Your task to perform on an android device: Search for hotels in Austin Image 0: 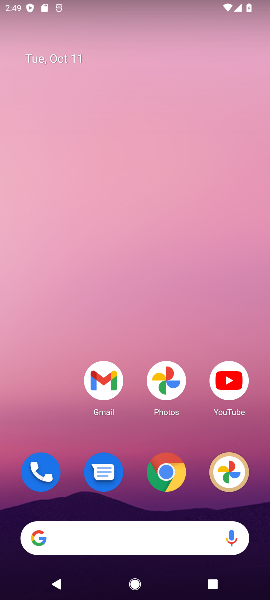
Step 0: click (168, 472)
Your task to perform on an android device: Search for hotels in Austin Image 1: 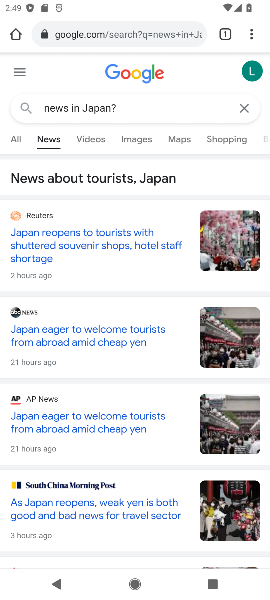
Step 1: click (62, 38)
Your task to perform on an android device: Search for hotels in Austin Image 2: 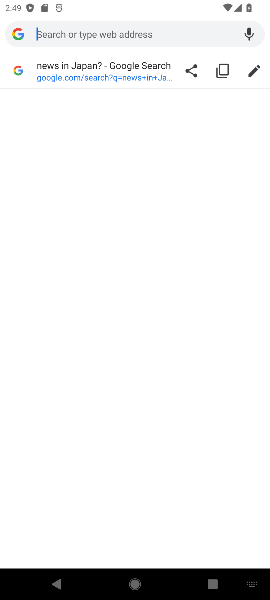
Step 2: type " hotels in Austin"
Your task to perform on an android device: Search for hotels in Austin Image 3: 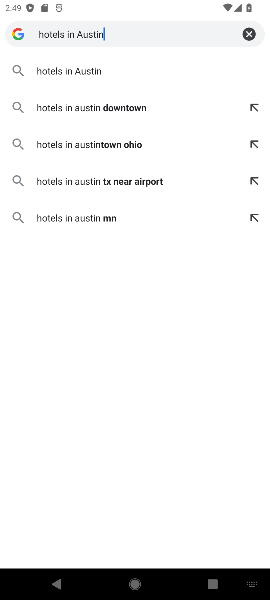
Step 3: click (70, 74)
Your task to perform on an android device: Search for hotels in Austin Image 4: 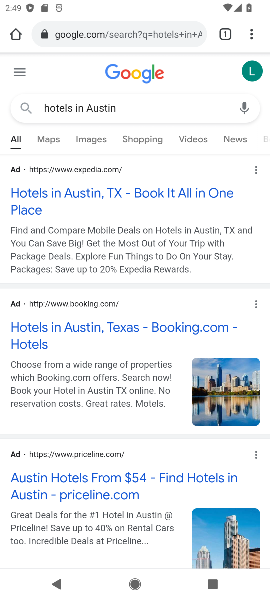
Step 4: drag from (113, 545) to (133, 122)
Your task to perform on an android device: Search for hotels in Austin Image 5: 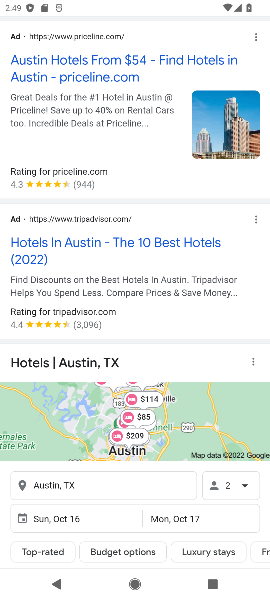
Step 5: drag from (165, 326) to (133, 43)
Your task to perform on an android device: Search for hotels in Austin Image 6: 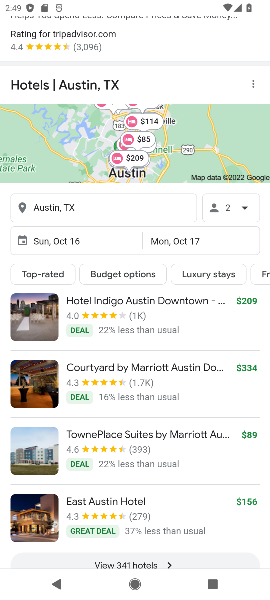
Step 6: drag from (131, 337) to (122, 124)
Your task to perform on an android device: Search for hotels in Austin Image 7: 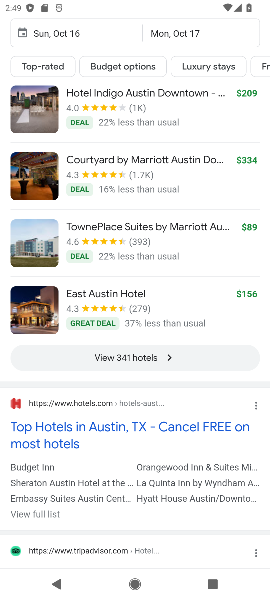
Step 7: click (145, 361)
Your task to perform on an android device: Search for hotels in Austin Image 8: 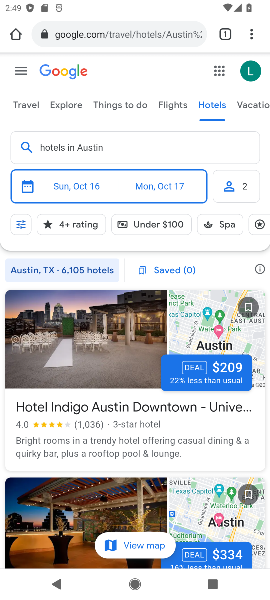
Step 8: task complete